Your task to perform on an android device: all mails in gmail Image 0: 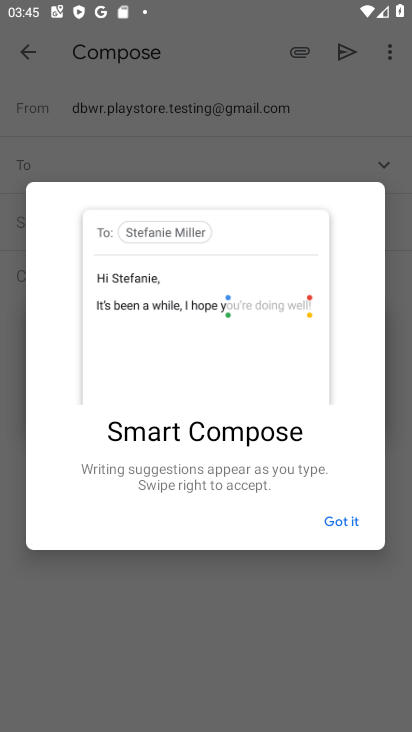
Step 0: press home button
Your task to perform on an android device: all mails in gmail Image 1: 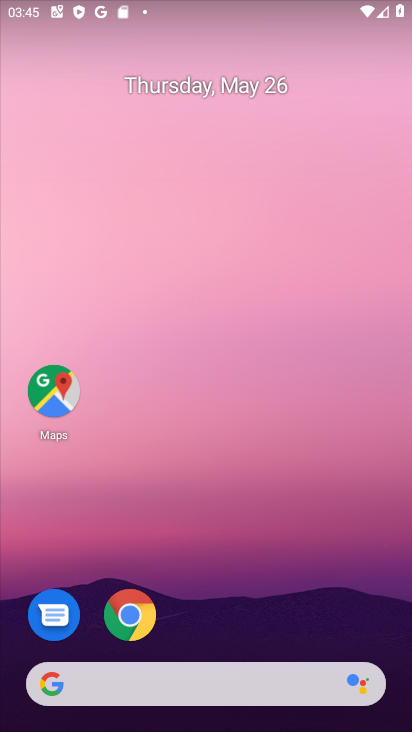
Step 1: drag from (203, 625) to (164, 112)
Your task to perform on an android device: all mails in gmail Image 2: 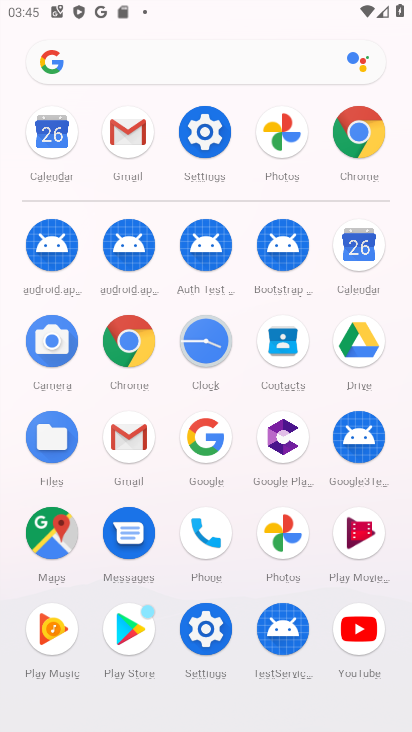
Step 2: click (125, 143)
Your task to perform on an android device: all mails in gmail Image 3: 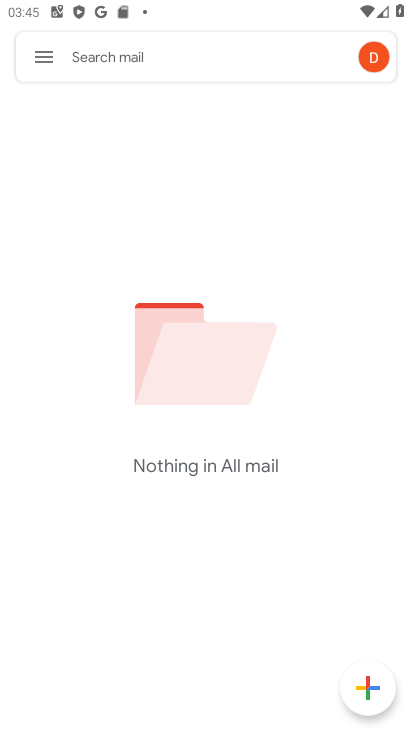
Step 3: task complete